Your task to perform on an android device: turn off airplane mode Image 0: 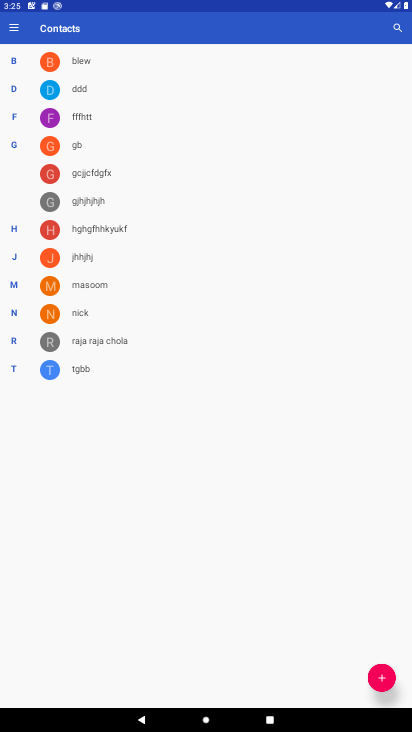
Step 0: press home button
Your task to perform on an android device: turn off airplane mode Image 1: 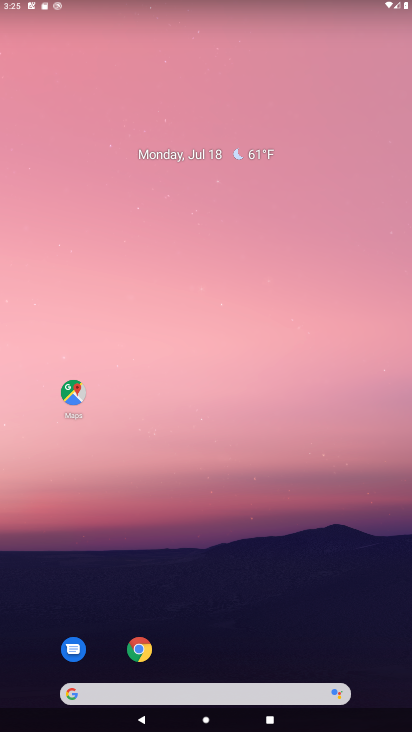
Step 1: drag from (302, 654) to (296, 99)
Your task to perform on an android device: turn off airplane mode Image 2: 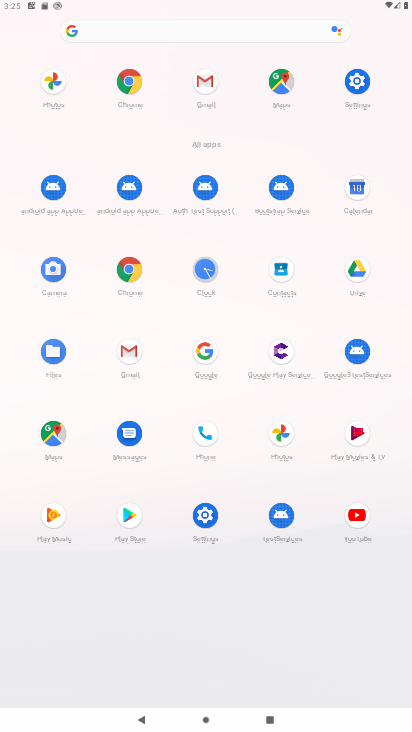
Step 2: click (356, 81)
Your task to perform on an android device: turn off airplane mode Image 3: 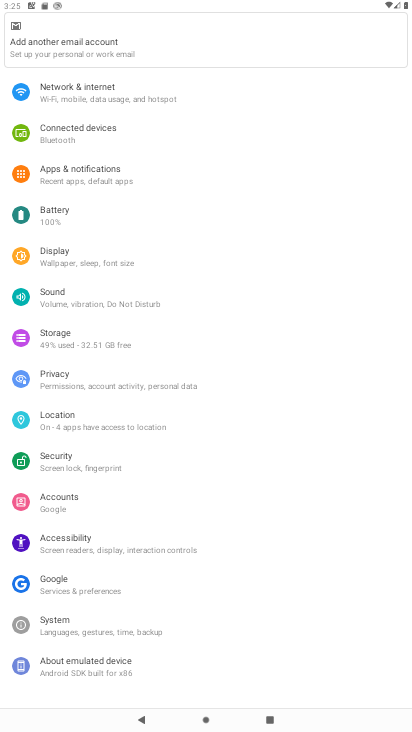
Step 3: click (82, 80)
Your task to perform on an android device: turn off airplane mode Image 4: 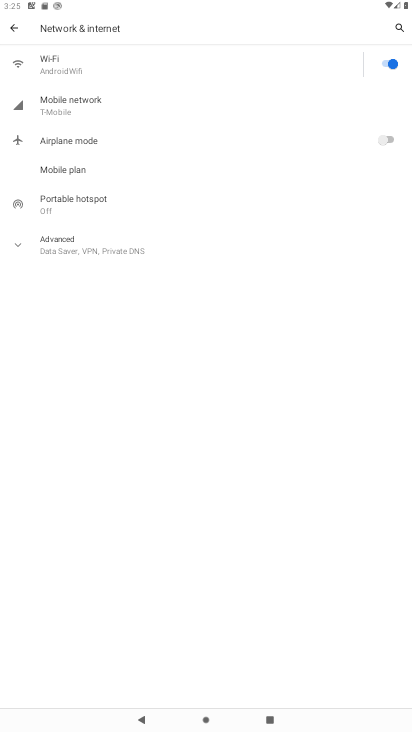
Step 4: task complete